Your task to perform on an android device: toggle location history Image 0: 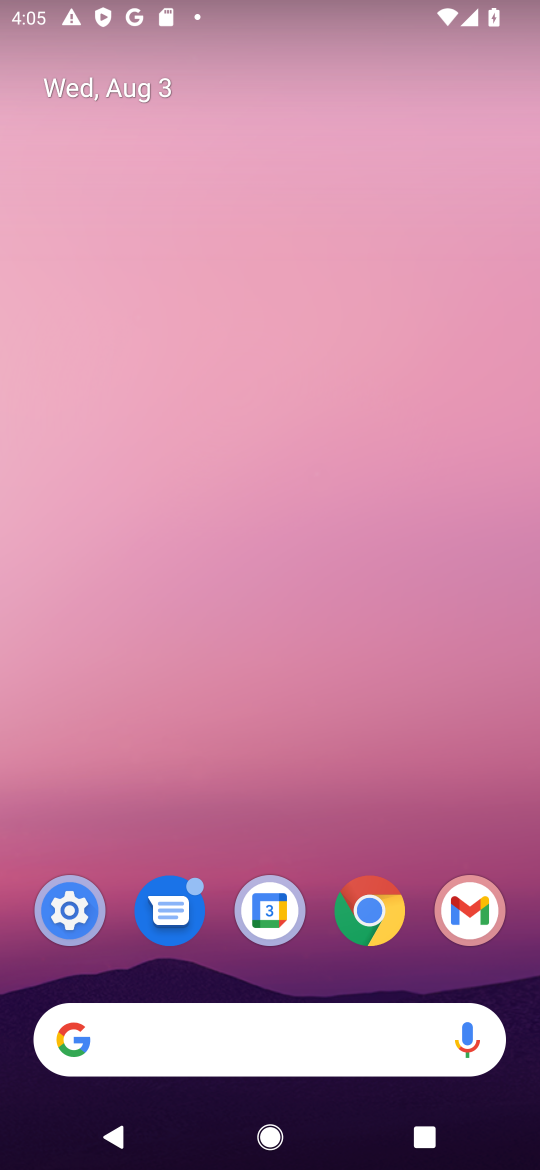
Step 0: drag from (109, 863) to (377, 274)
Your task to perform on an android device: toggle location history Image 1: 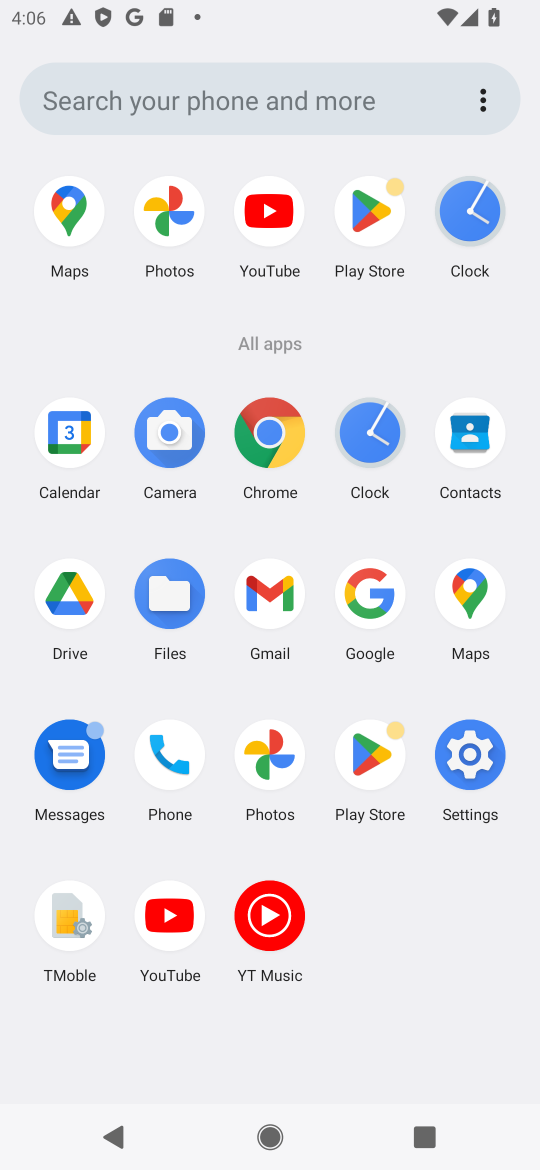
Step 1: click (471, 777)
Your task to perform on an android device: toggle location history Image 2: 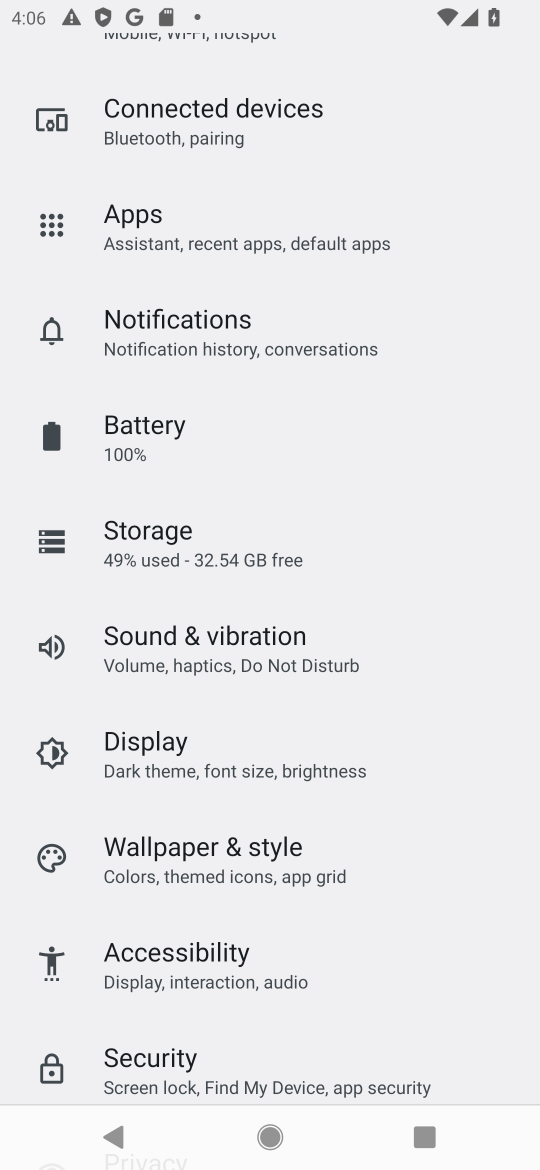
Step 2: drag from (325, 841) to (352, 421)
Your task to perform on an android device: toggle location history Image 3: 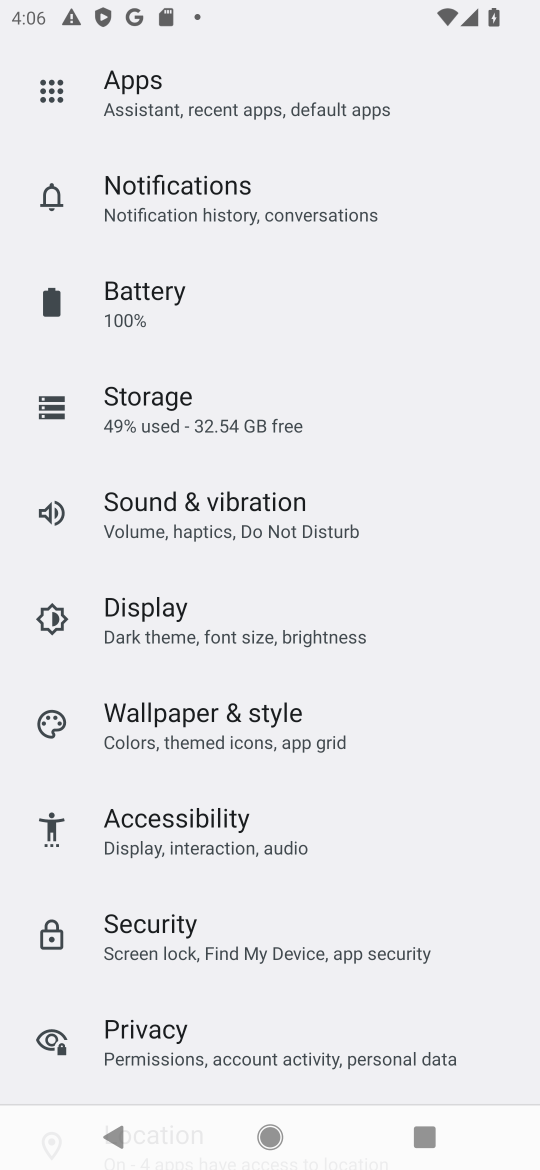
Step 3: drag from (271, 924) to (284, 625)
Your task to perform on an android device: toggle location history Image 4: 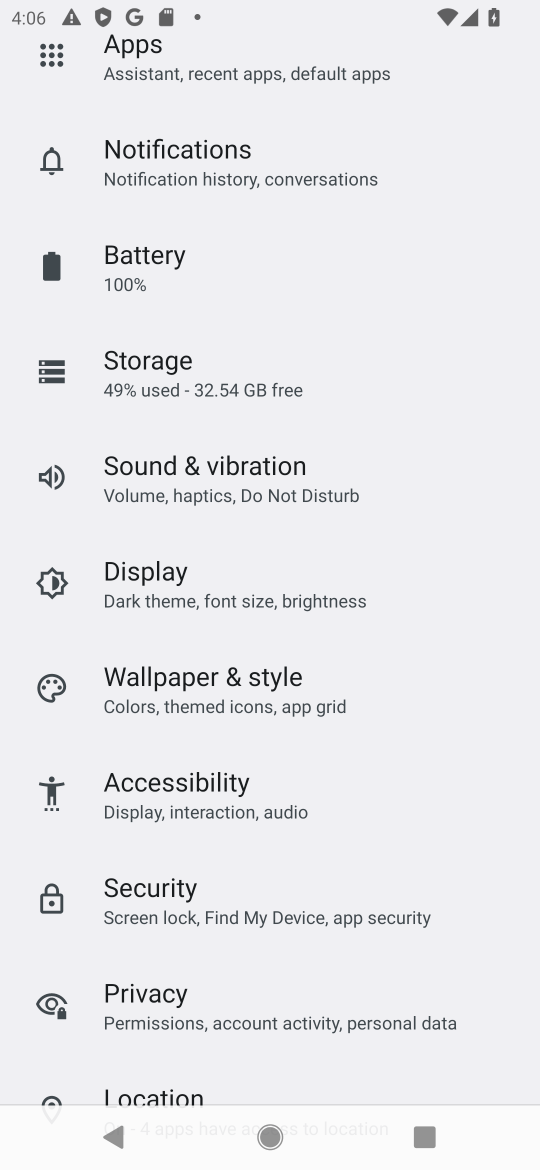
Step 4: drag from (174, 959) to (353, 89)
Your task to perform on an android device: toggle location history Image 5: 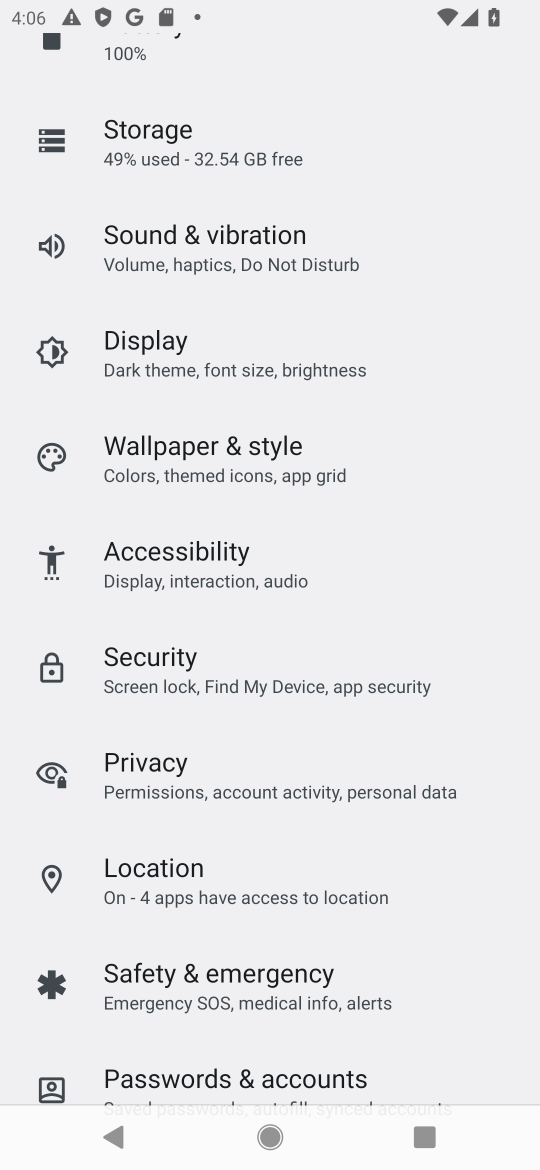
Step 5: click (158, 878)
Your task to perform on an android device: toggle location history Image 6: 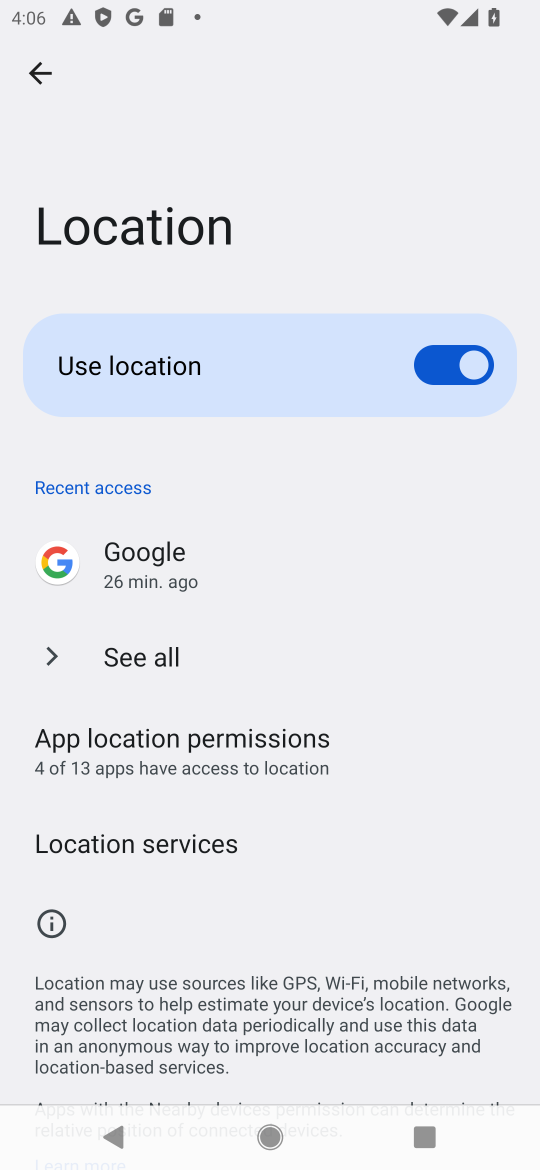
Step 6: click (128, 663)
Your task to perform on an android device: toggle location history Image 7: 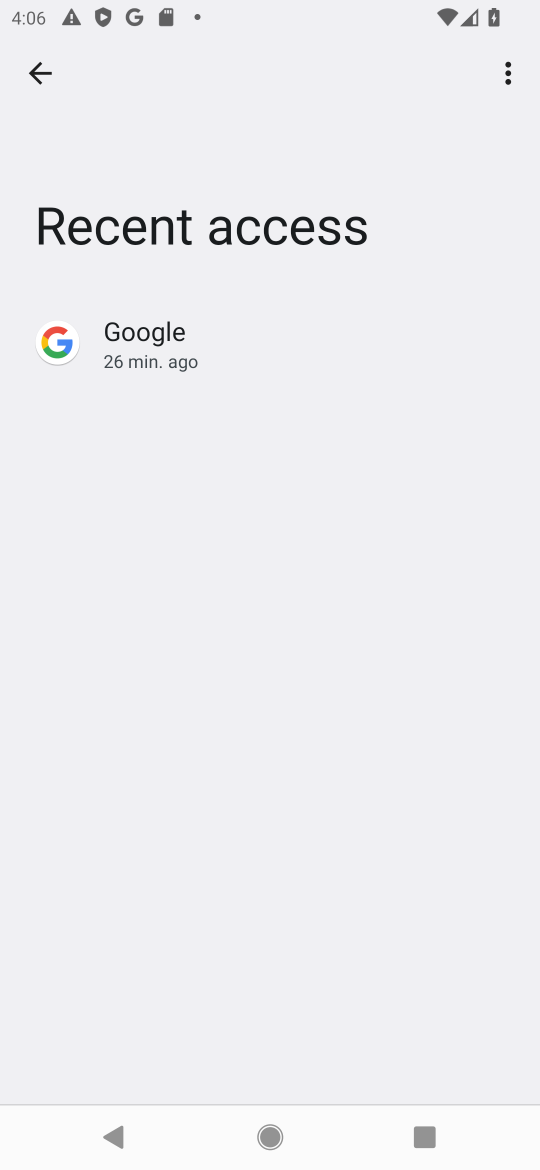
Step 7: click (27, 57)
Your task to perform on an android device: toggle location history Image 8: 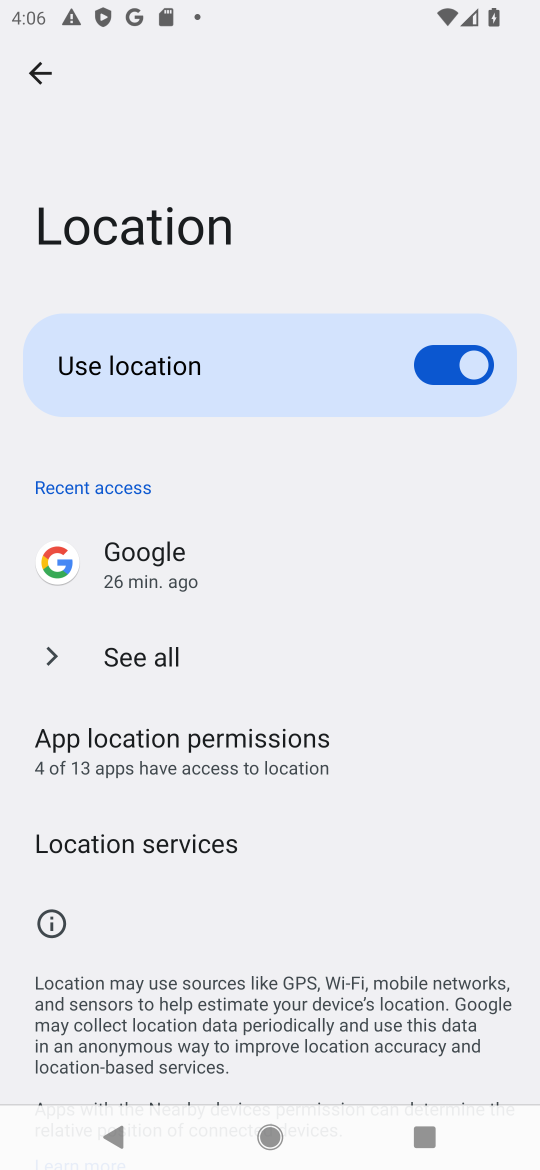
Step 8: click (155, 845)
Your task to perform on an android device: toggle location history Image 9: 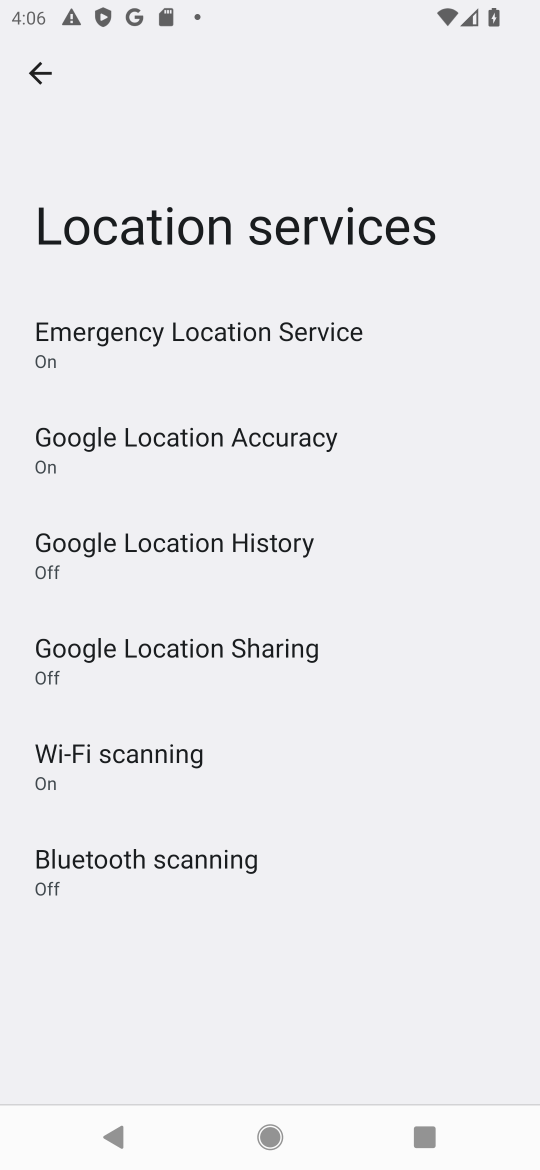
Step 9: click (200, 565)
Your task to perform on an android device: toggle location history Image 10: 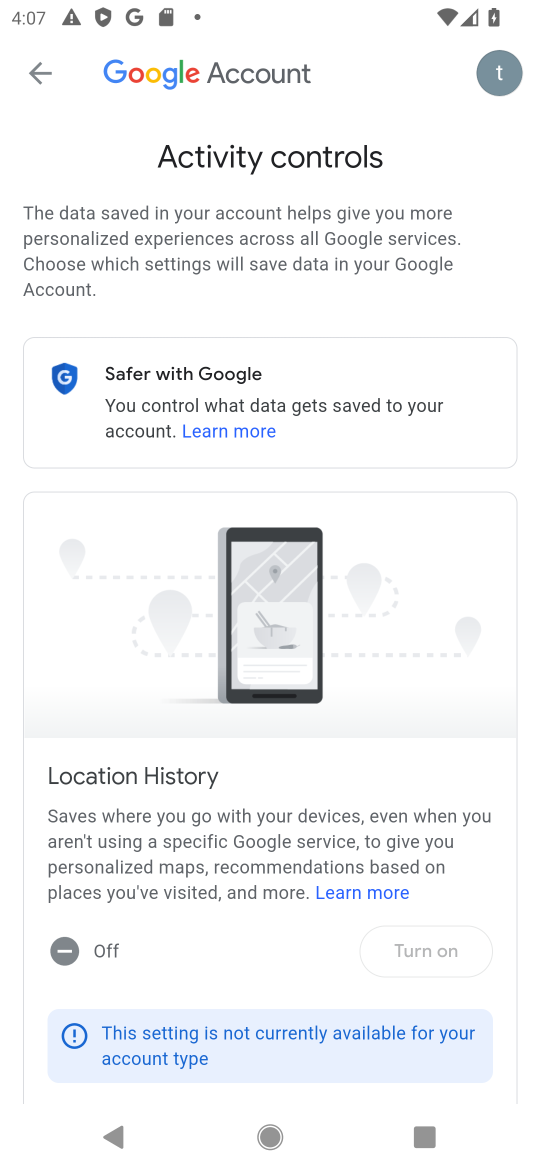
Step 10: click (438, 958)
Your task to perform on an android device: toggle location history Image 11: 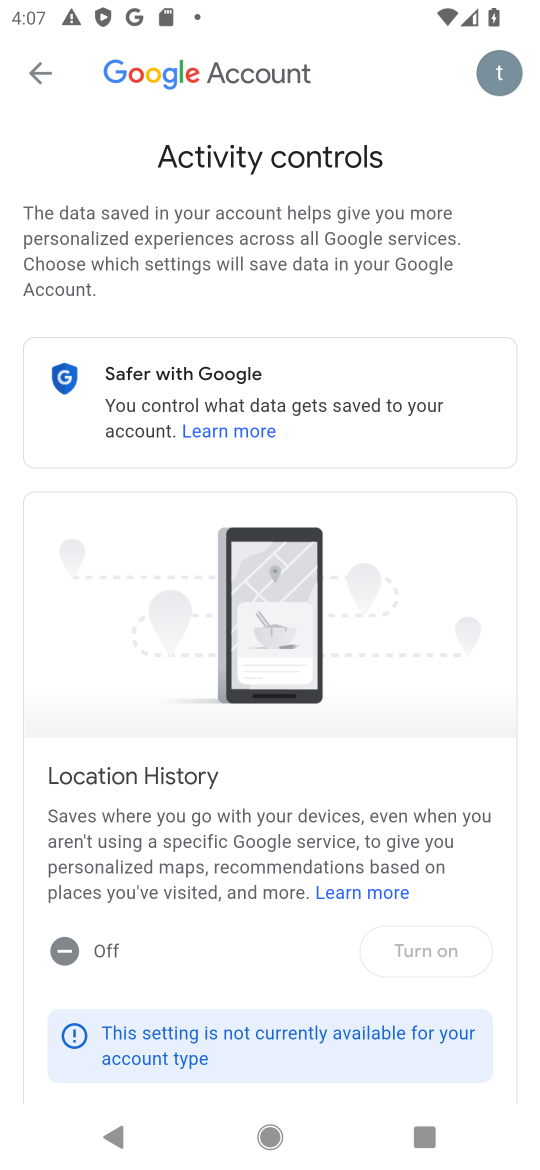
Step 11: click (434, 954)
Your task to perform on an android device: toggle location history Image 12: 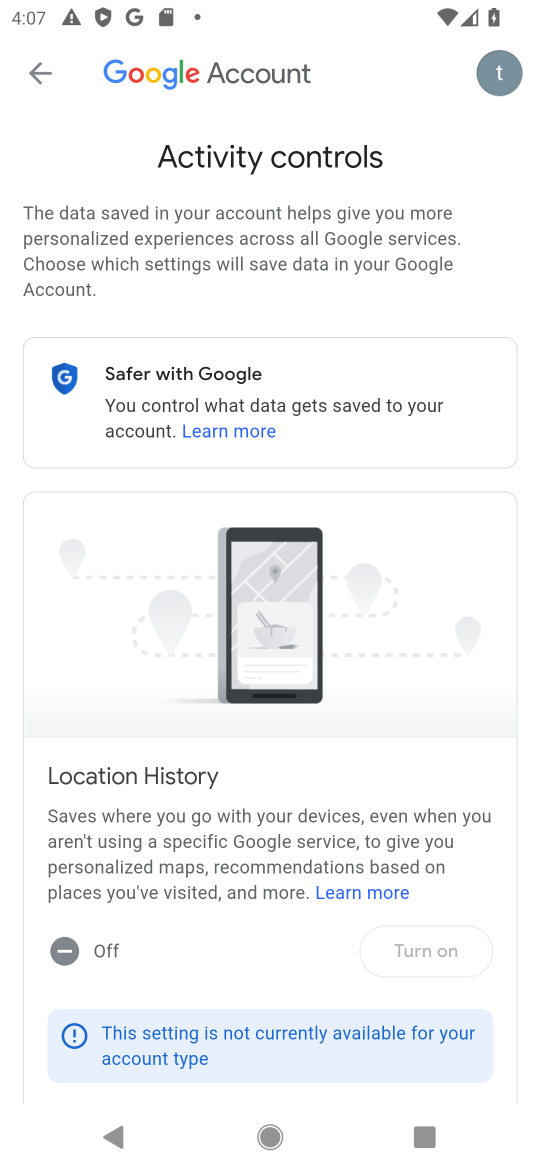
Step 12: task complete